Your task to perform on an android device: toggle improve location accuracy Image 0: 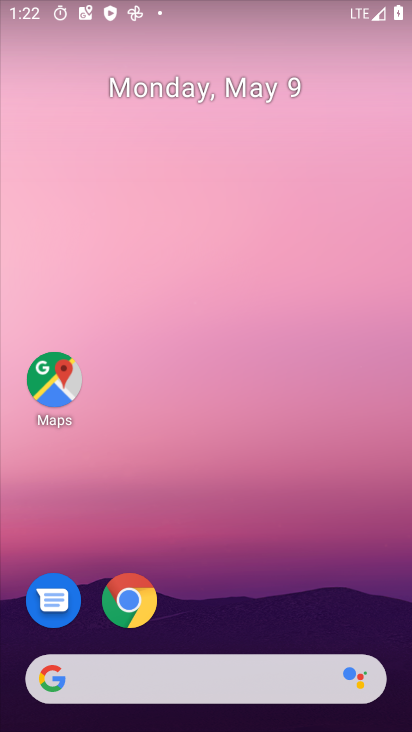
Step 0: drag from (214, 580) to (223, 203)
Your task to perform on an android device: toggle improve location accuracy Image 1: 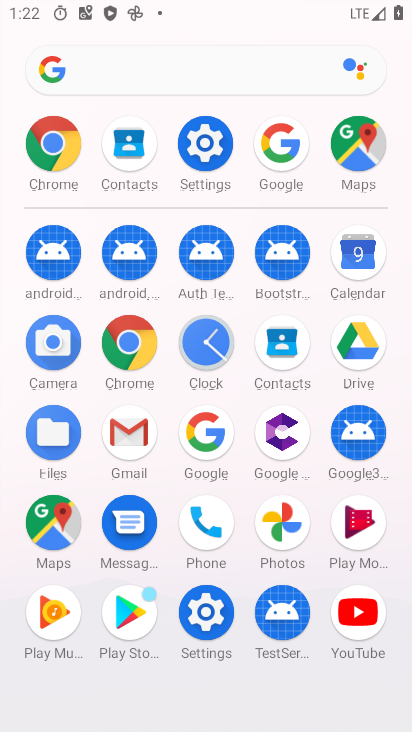
Step 1: click (193, 149)
Your task to perform on an android device: toggle improve location accuracy Image 2: 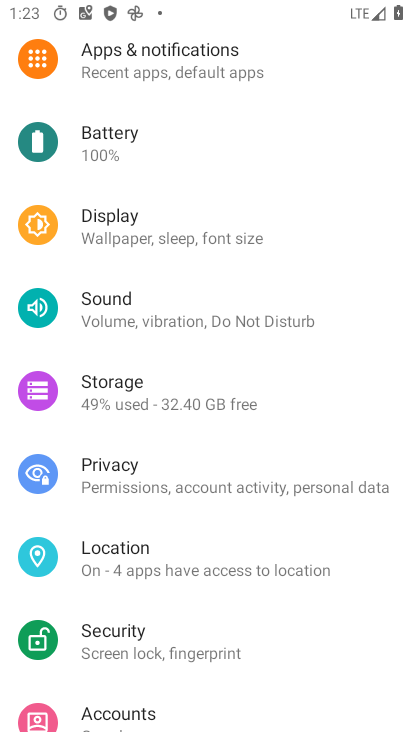
Step 2: click (192, 579)
Your task to perform on an android device: toggle improve location accuracy Image 3: 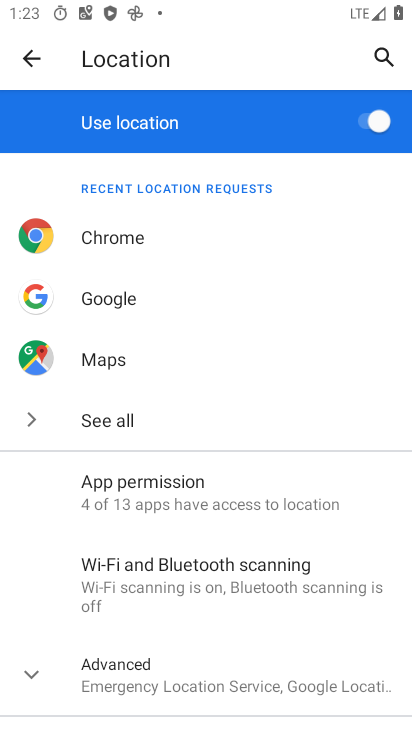
Step 3: drag from (185, 607) to (169, 282)
Your task to perform on an android device: toggle improve location accuracy Image 4: 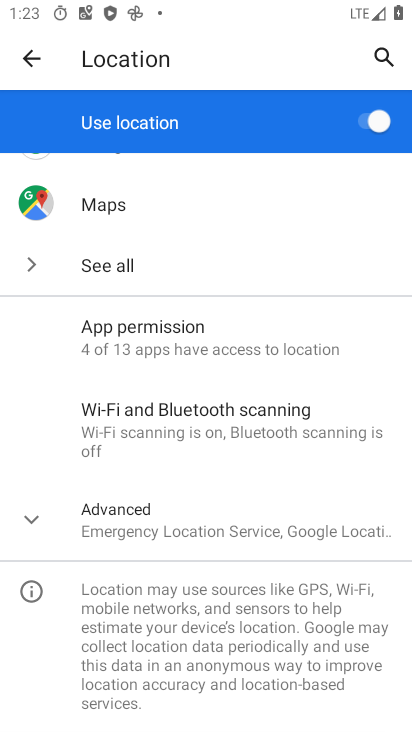
Step 4: click (174, 534)
Your task to perform on an android device: toggle improve location accuracy Image 5: 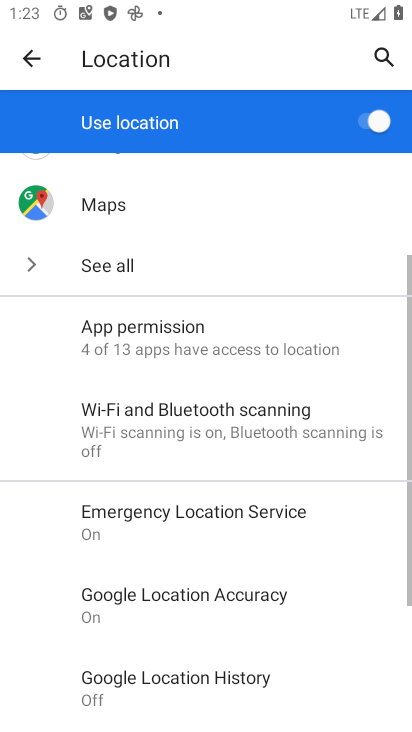
Step 5: drag from (172, 522) to (167, 328)
Your task to perform on an android device: toggle improve location accuracy Image 6: 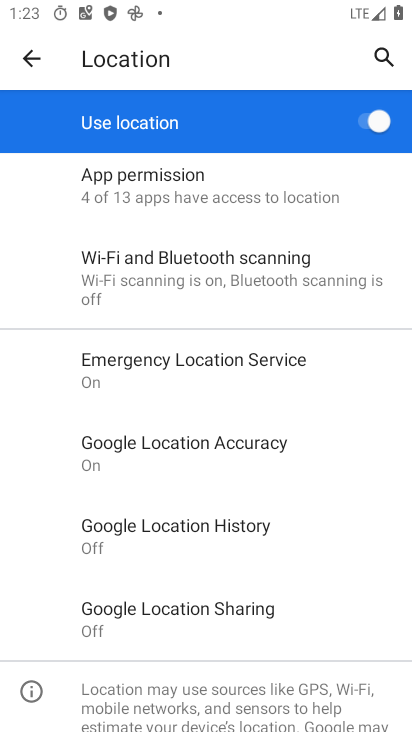
Step 6: click (209, 470)
Your task to perform on an android device: toggle improve location accuracy Image 7: 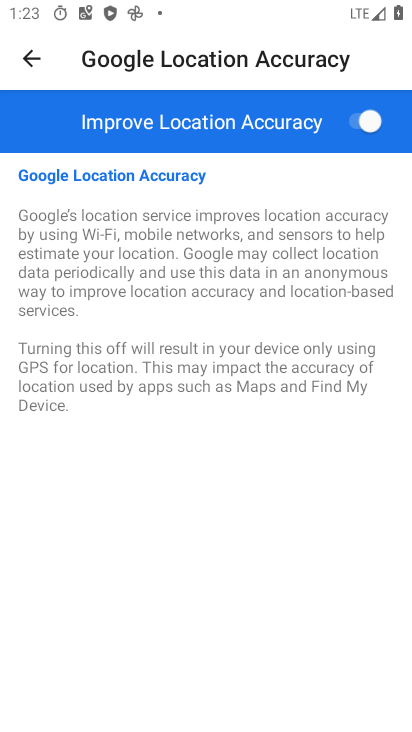
Step 7: click (382, 127)
Your task to perform on an android device: toggle improve location accuracy Image 8: 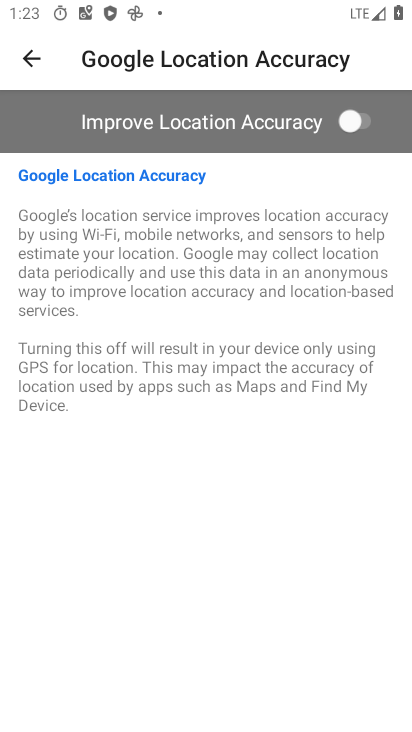
Step 8: task complete